Your task to perform on an android device: turn on data saver in the chrome app Image 0: 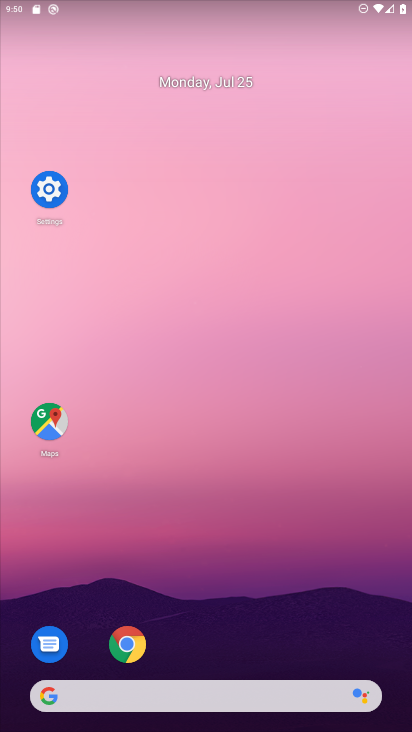
Step 0: click (127, 671)
Your task to perform on an android device: turn on data saver in the chrome app Image 1: 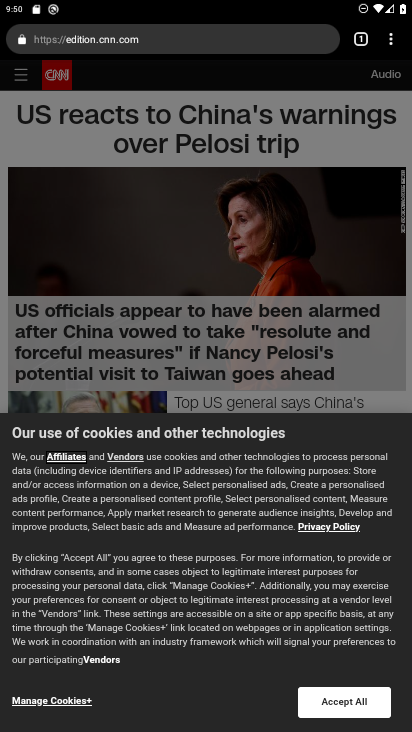
Step 1: click (394, 38)
Your task to perform on an android device: turn on data saver in the chrome app Image 2: 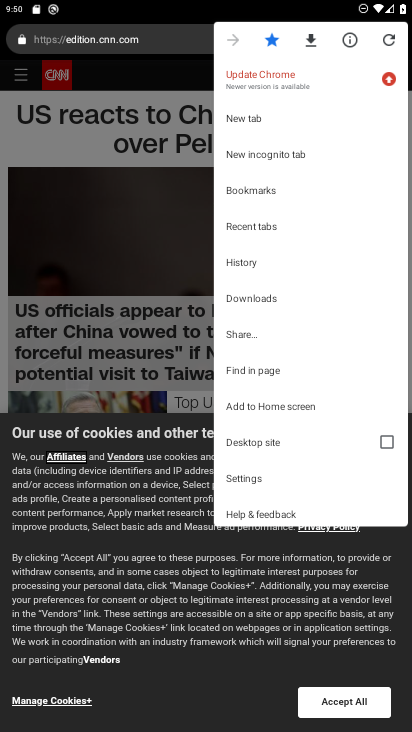
Step 2: click (272, 471)
Your task to perform on an android device: turn on data saver in the chrome app Image 3: 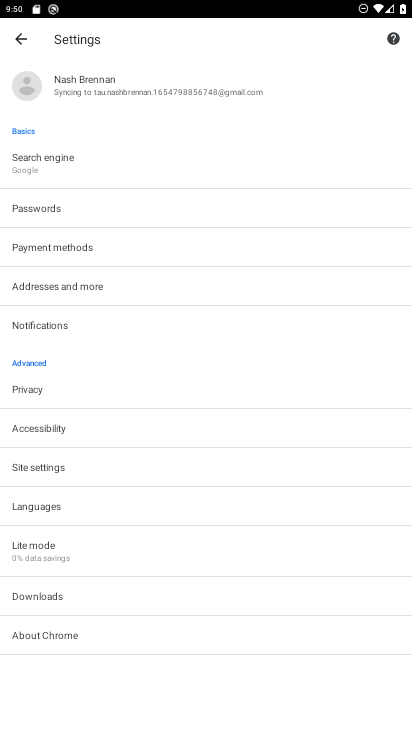
Step 3: click (142, 537)
Your task to perform on an android device: turn on data saver in the chrome app Image 4: 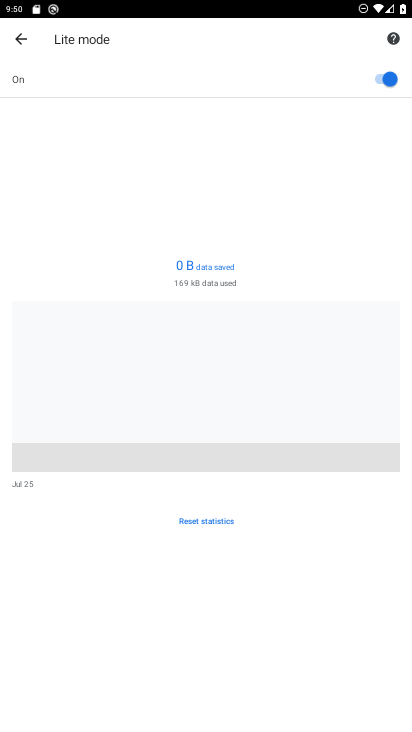
Step 4: task complete